Your task to perform on an android device: see tabs open on other devices in the chrome app Image 0: 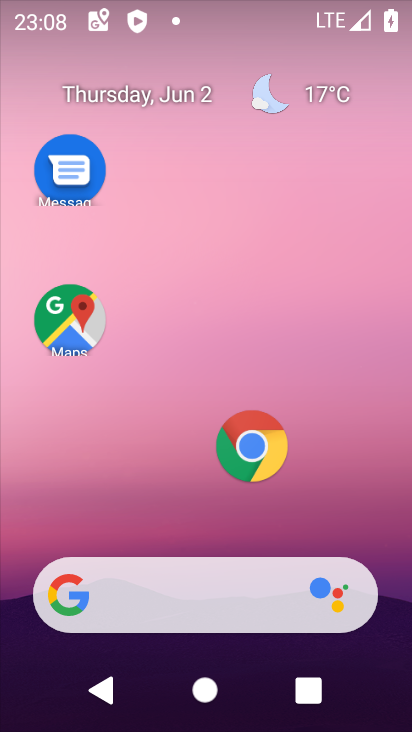
Step 0: press home button
Your task to perform on an android device: see tabs open on other devices in the chrome app Image 1: 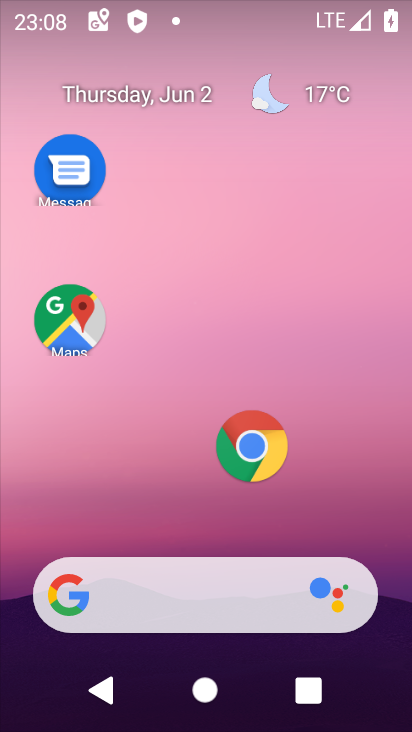
Step 1: click (268, 442)
Your task to perform on an android device: see tabs open on other devices in the chrome app Image 2: 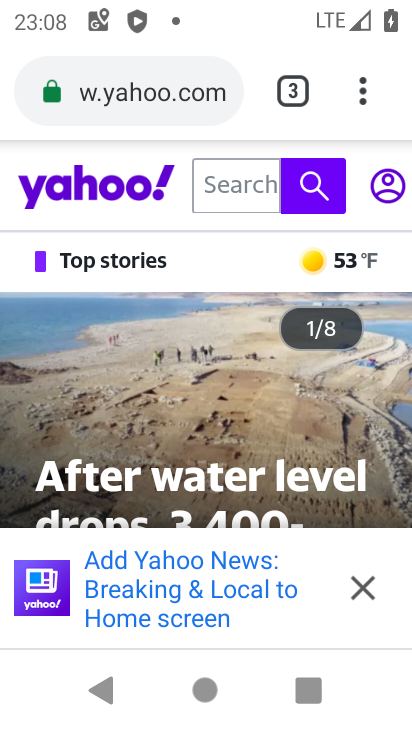
Step 2: task complete